Your task to perform on an android device: install app "Yahoo Mail" Image 0: 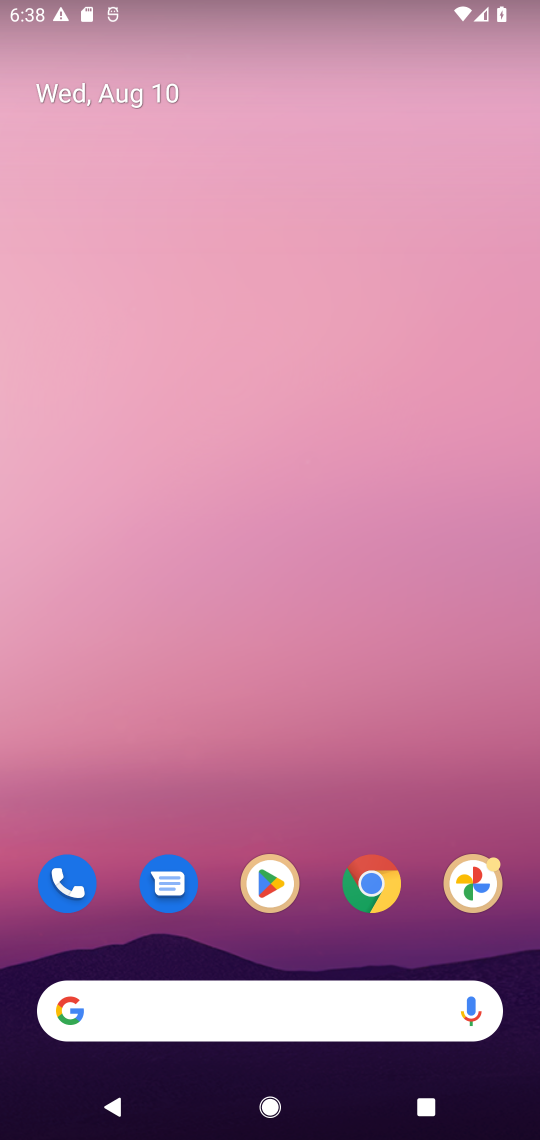
Step 0: drag from (331, 961) to (311, 133)
Your task to perform on an android device: install app "Yahoo Mail" Image 1: 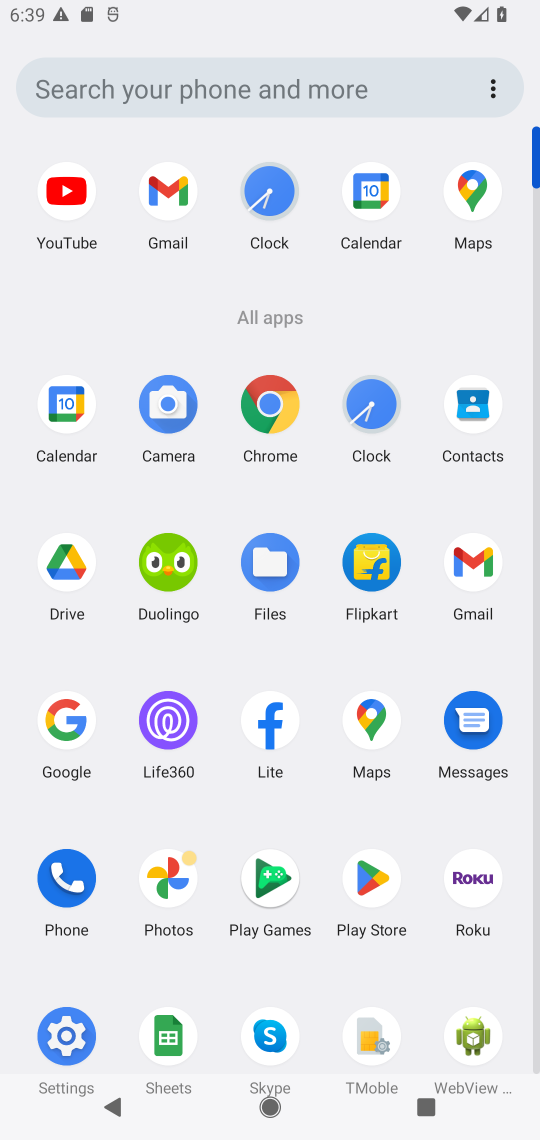
Step 1: click (365, 872)
Your task to perform on an android device: install app "Yahoo Mail" Image 2: 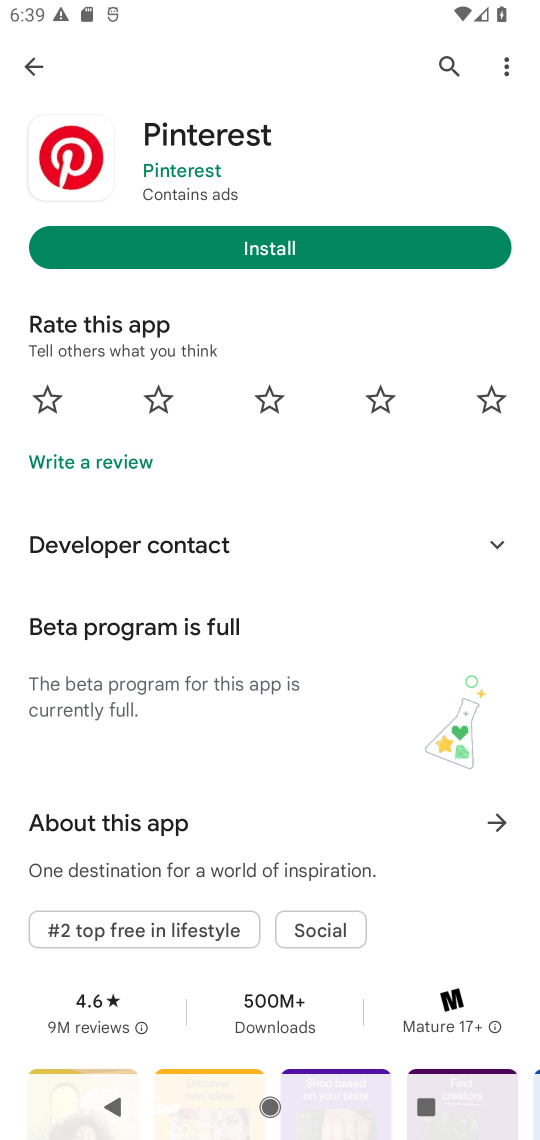
Step 2: click (446, 60)
Your task to perform on an android device: install app "Yahoo Mail" Image 3: 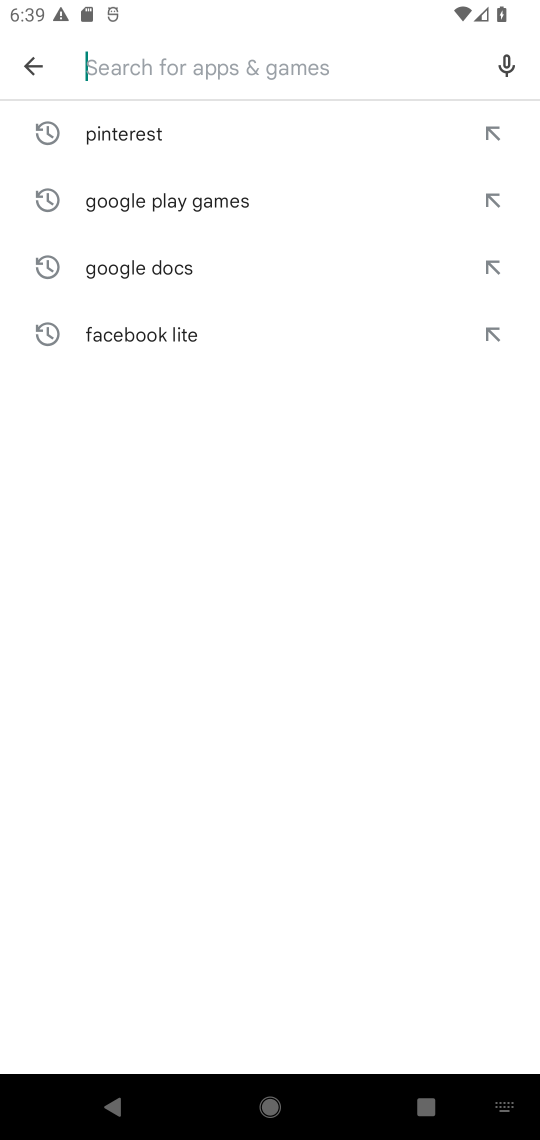
Step 3: type "Yahoo Mail"
Your task to perform on an android device: install app "Yahoo Mail" Image 4: 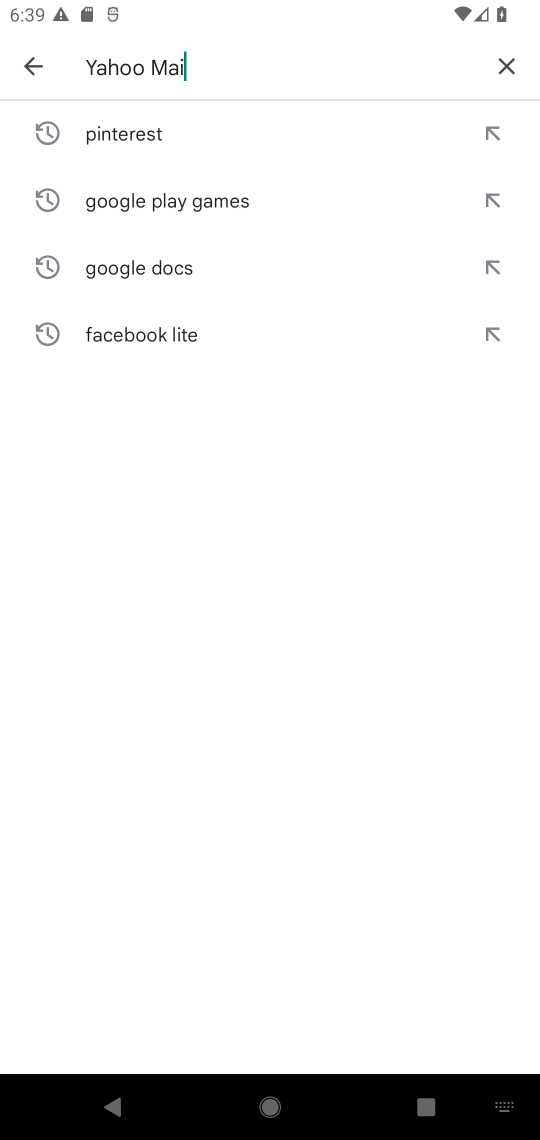
Step 4: type ""
Your task to perform on an android device: install app "Yahoo Mail" Image 5: 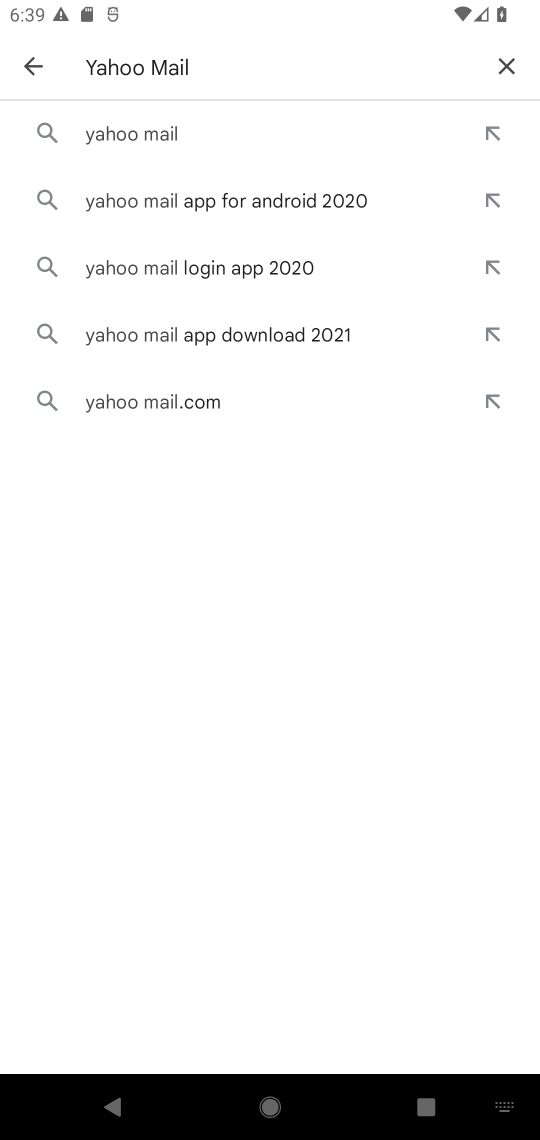
Step 5: click (167, 127)
Your task to perform on an android device: install app "Yahoo Mail" Image 6: 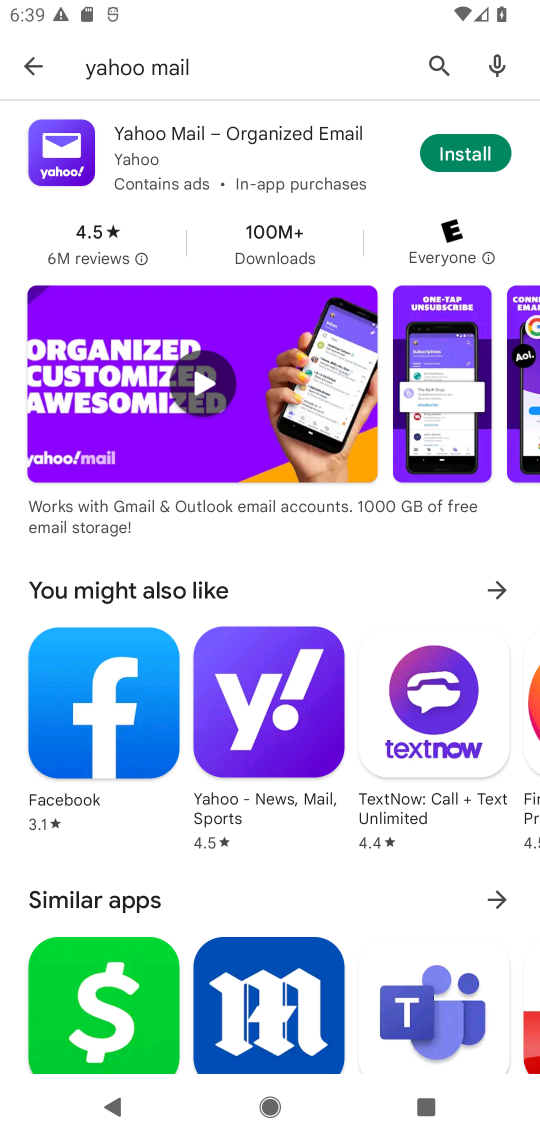
Step 6: click (486, 150)
Your task to perform on an android device: install app "Yahoo Mail" Image 7: 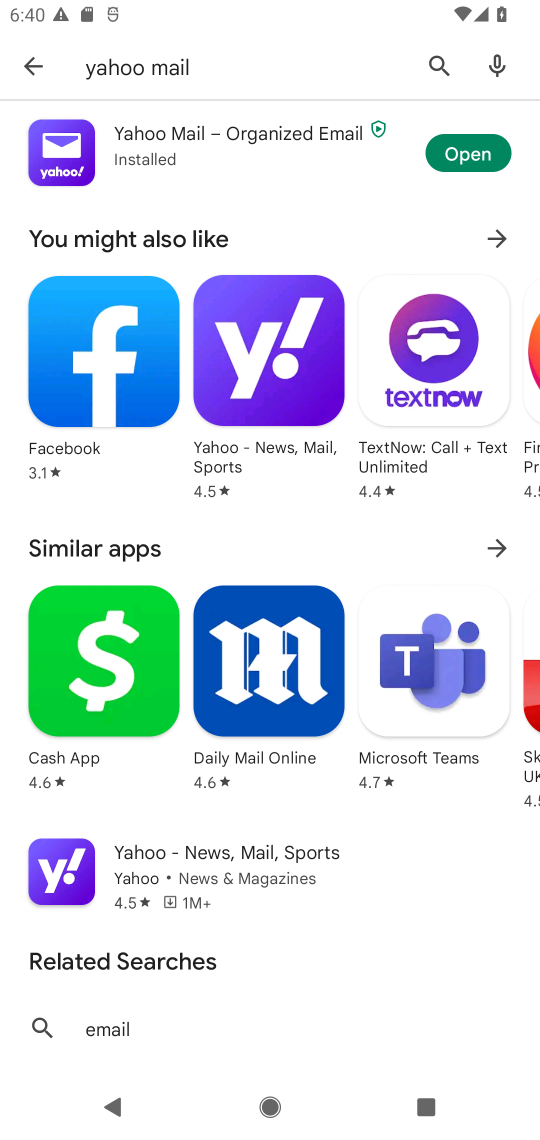
Step 7: task complete